Your task to perform on an android device: toggle show notifications on the lock screen Image 0: 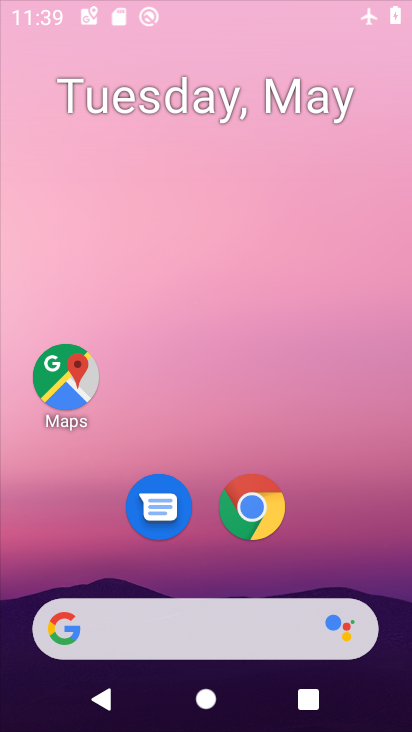
Step 0: click (205, 218)
Your task to perform on an android device: toggle show notifications on the lock screen Image 1: 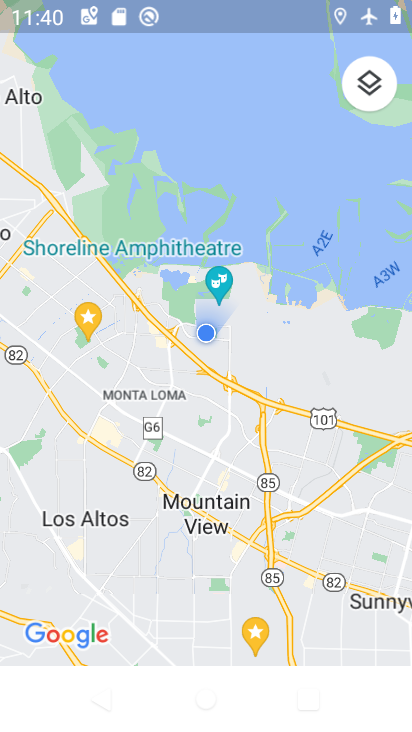
Step 1: press back button
Your task to perform on an android device: toggle show notifications on the lock screen Image 2: 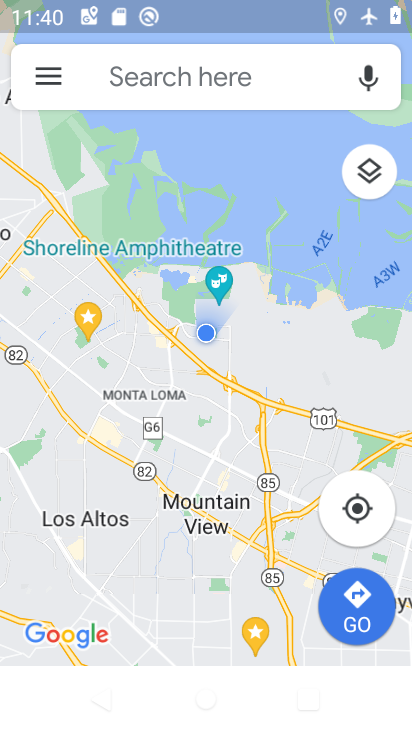
Step 2: press home button
Your task to perform on an android device: toggle show notifications on the lock screen Image 3: 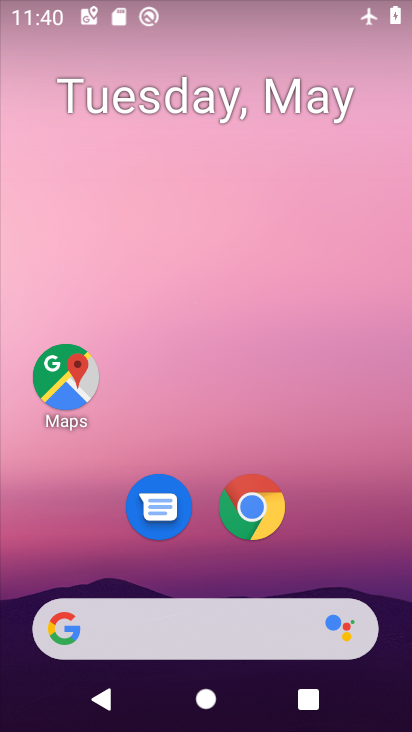
Step 3: drag from (253, 640) to (130, 9)
Your task to perform on an android device: toggle show notifications on the lock screen Image 4: 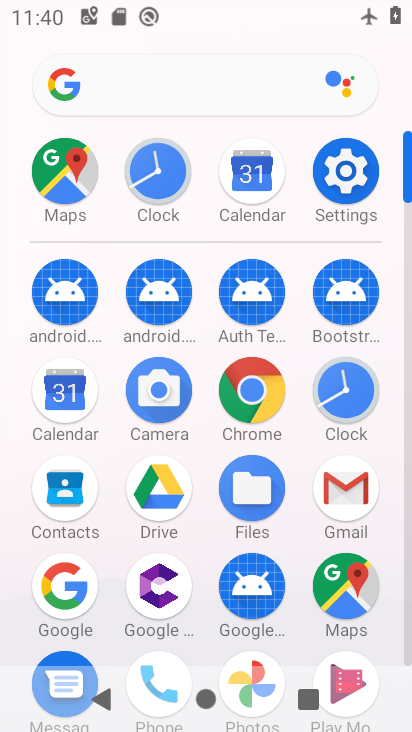
Step 4: click (341, 163)
Your task to perform on an android device: toggle show notifications on the lock screen Image 5: 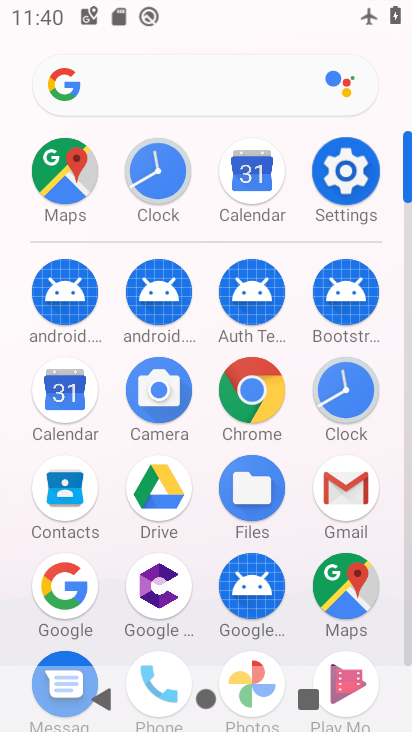
Step 5: click (345, 173)
Your task to perform on an android device: toggle show notifications on the lock screen Image 6: 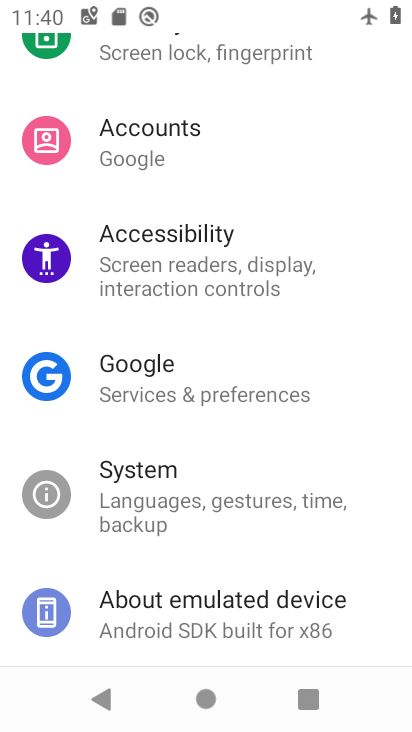
Step 6: drag from (147, 503) to (197, 634)
Your task to perform on an android device: toggle show notifications on the lock screen Image 7: 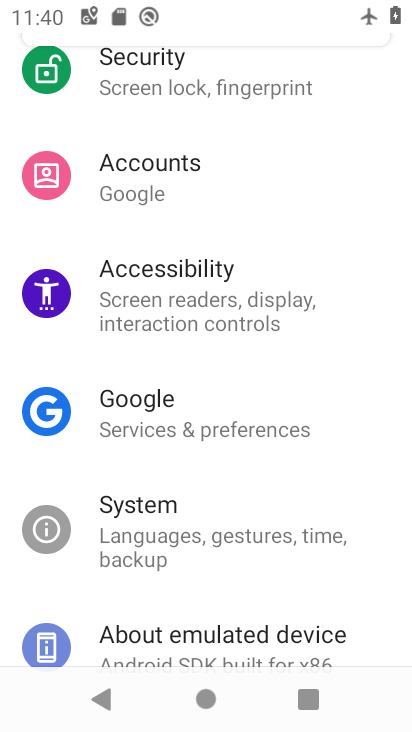
Step 7: drag from (148, 265) to (178, 549)
Your task to perform on an android device: toggle show notifications on the lock screen Image 8: 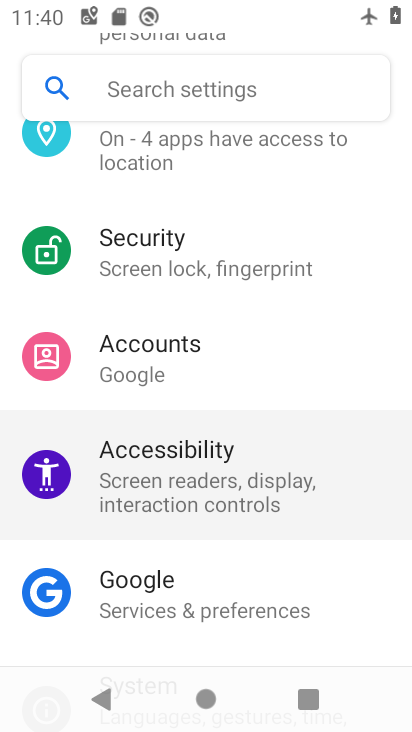
Step 8: drag from (193, 407) to (209, 688)
Your task to perform on an android device: toggle show notifications on the lock screen Image 9: 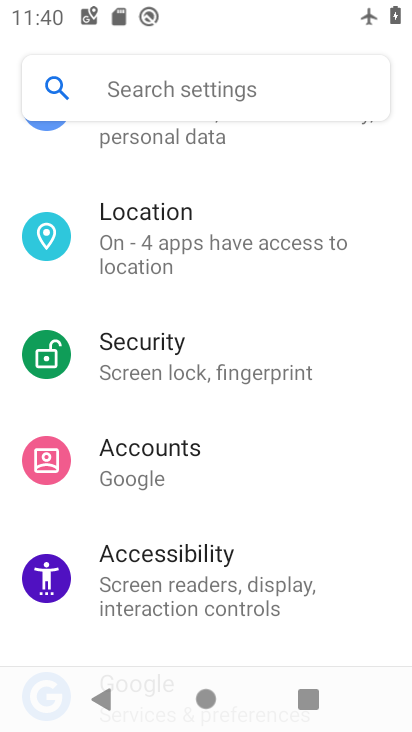
Step 9: drag from (234, 325) to (239, 538)
Your task to perform on an android device: toggle show notifications on the lock screen Image 10: 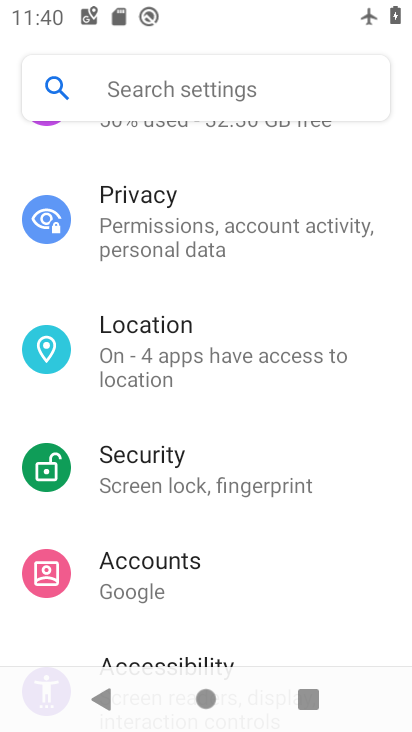
Step 10: drag from (216, 211) to (224, 516)
Your task to perform on an android device: toggle show notifications on the lock screen Image 11: 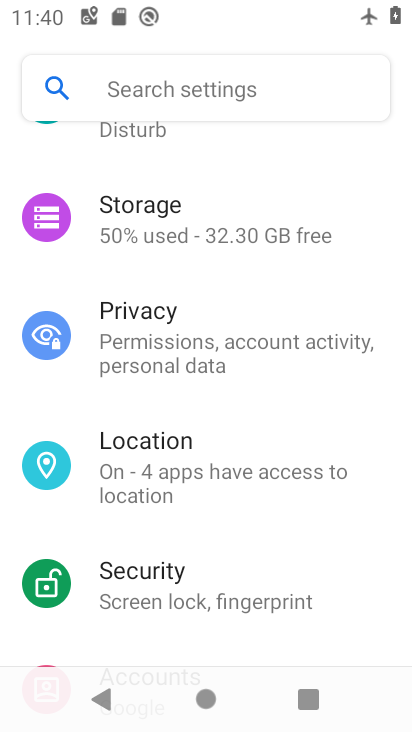
Step 11: drag from (249, 192) to (251, 548)
Your task to perform on an android device: toggle show notifications on the lock screen Image 12: 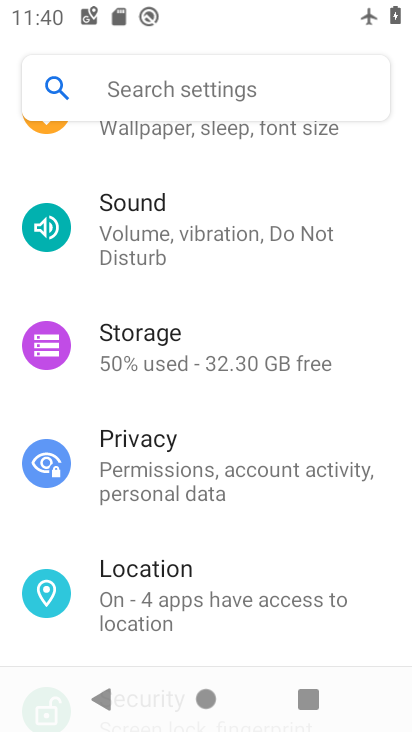
Step 12: drag from (231, 324) to (208, 564)
Your task to perform on an android device: toggle show notifications on the lock screen Image 13: 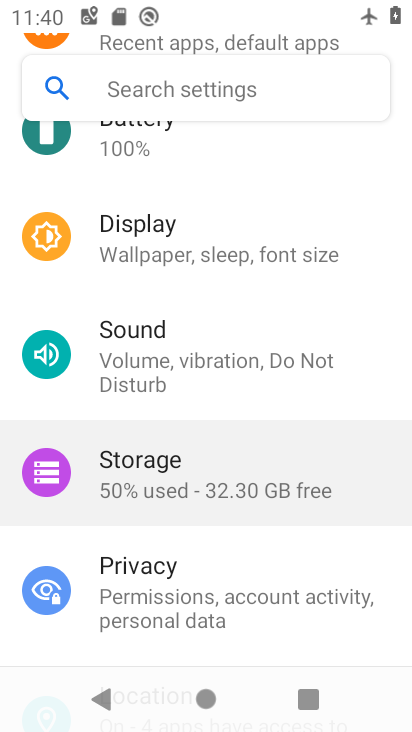
Step 13: drag from (168, 212) to (184, 509)
Your task to perform on an android device: toggle show notifications on the lock screen Image 14: 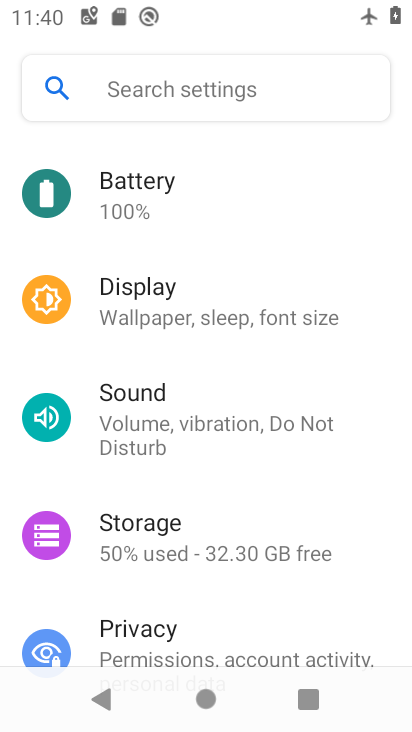
Step 14: drag from (198, 288) to (227, 622)
Your task to perform on an android device: toggle show notifications on the lock screen Image 15: 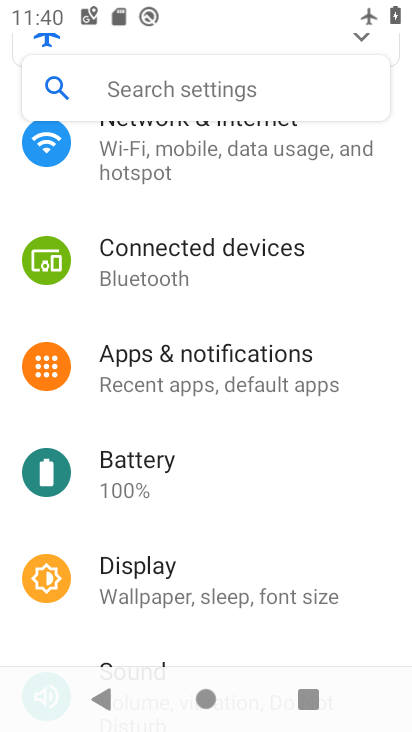
Step 15: drag from (188, 484) to (196, 674)
Your task to perform on an android device: toggle show notifications on the lock screen Image 16: 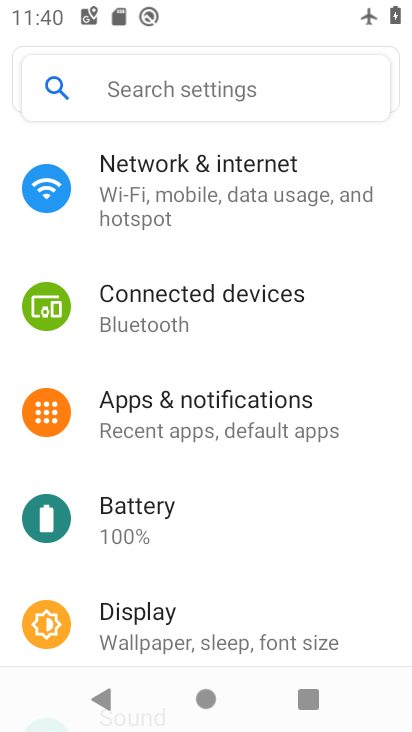
Step 16: click (204, 409)
Your task to perform on an android device: toggle show notifications on the lock screen Image 17: 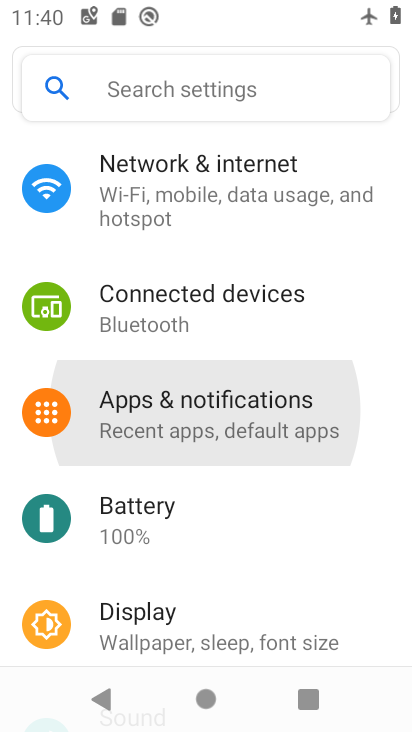
Step 17: click (204, 409)
Your task to perform on an android device: toggle show notifications on the lock screen Image 18: 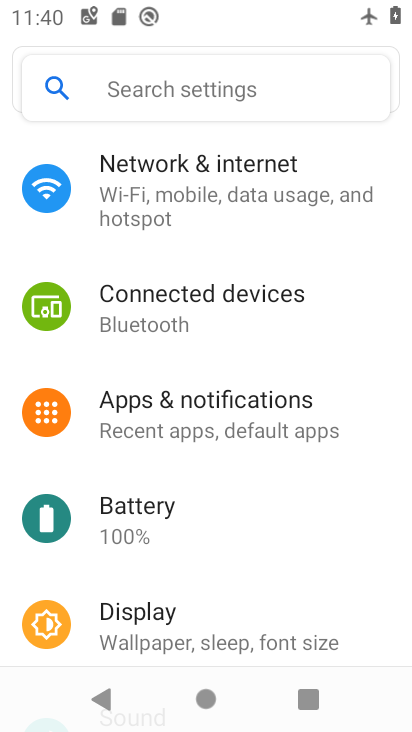
Step 18: click (206, 408)
Your task to perform on an android device: toggle show notifications on the lock screen Image 19: 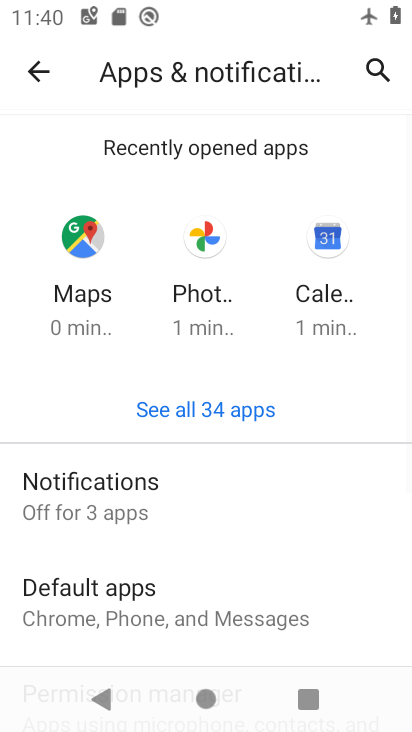
Step 19: drag from (161, 477) to (192, 226)
Your task to perform on an android device: toggle show notifications on the lock screen Image 20: 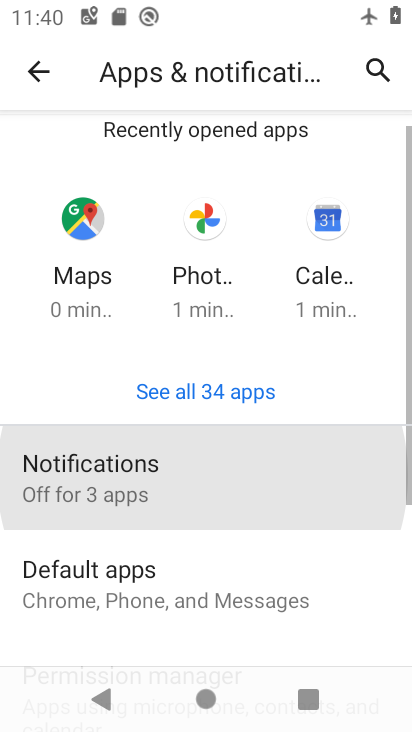
Step 20: drag from (240, 421) to (234, 315)
Your task to perform on an android device: toggle show notifications on the lock screen Image 21: 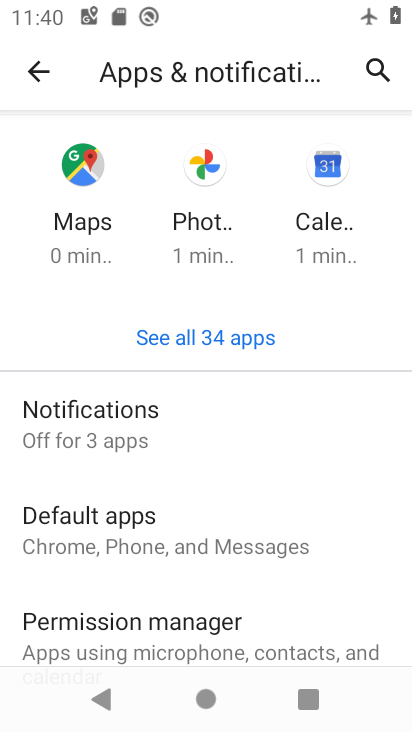
Step 21: click (94, 408)
Your task to perform on an android device: toggle show notifications on the lock screen Image 22: 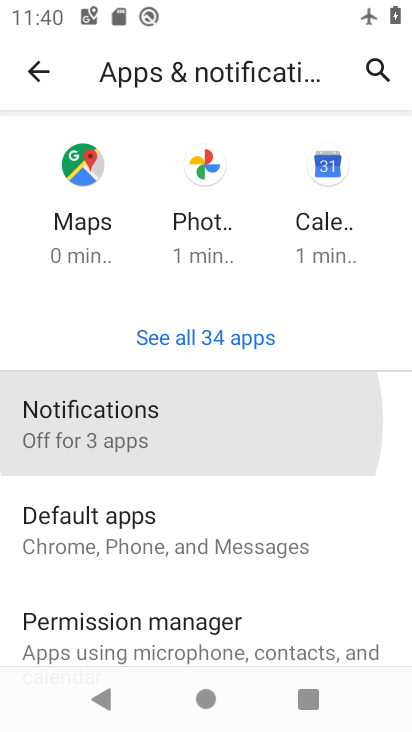
Step 22: click (94, 408)
Your task to perform on an android device: toggle show notifications on the lock screen Image 23: 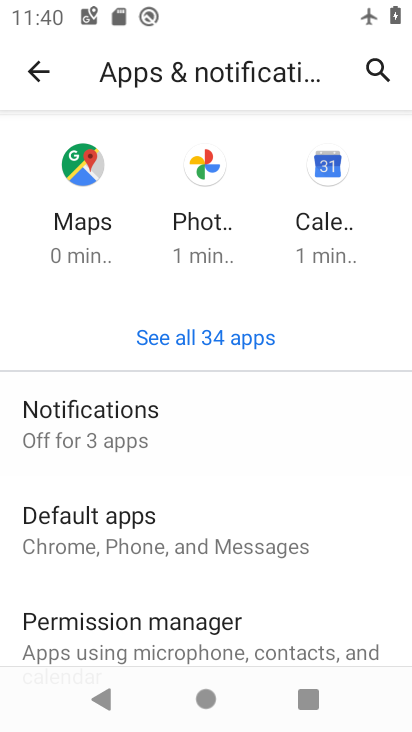
Step 23: click (97, 408)
Your task to perform on an android device: toggle show notifications on the lock screen Image 24: 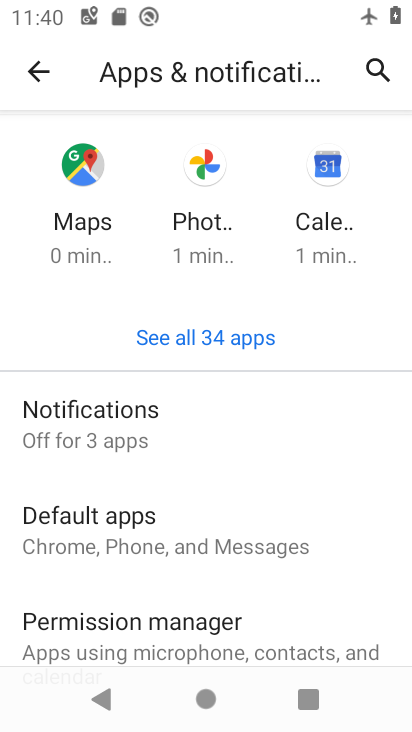
Step 24: click (101, 408)
Your task to perform on an android device: toggle show notifications on the lock screen Image 25: 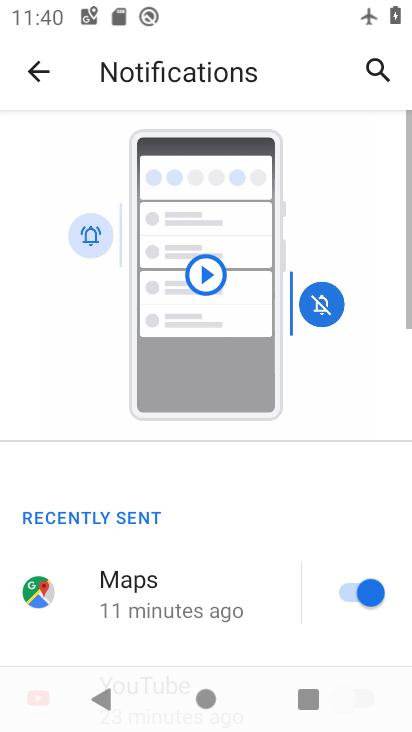
Step 25: drag from (260, 602) to (225, 355)
Your task to perform on an android device: toggle show notifications on the lock screen Image 26: 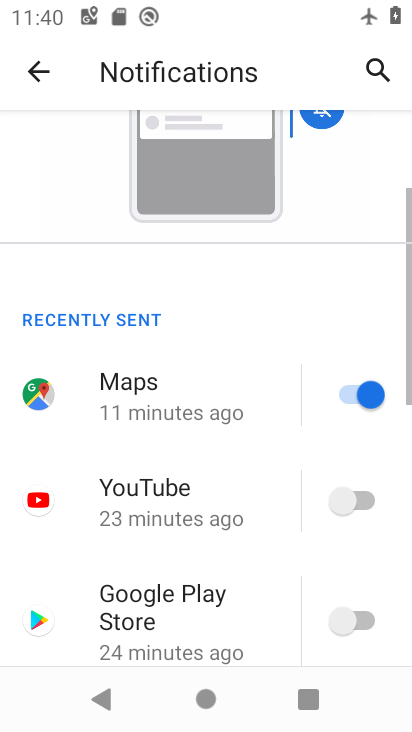
Step 26: drag from (278, 491) to (321, 140)
Your task to perform on an android device: toggle show notifications on the lock screen Image 27: 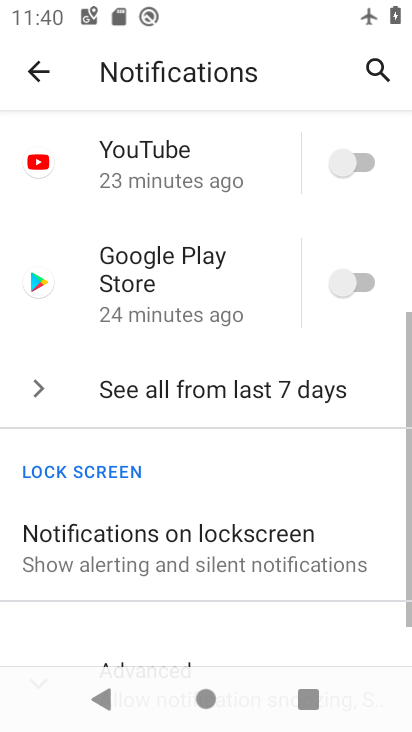
Step 27: drag from (266, 491) to (270, 258)
Your task to perform on an android device: toggle show notifications on the lock screen Image 28: 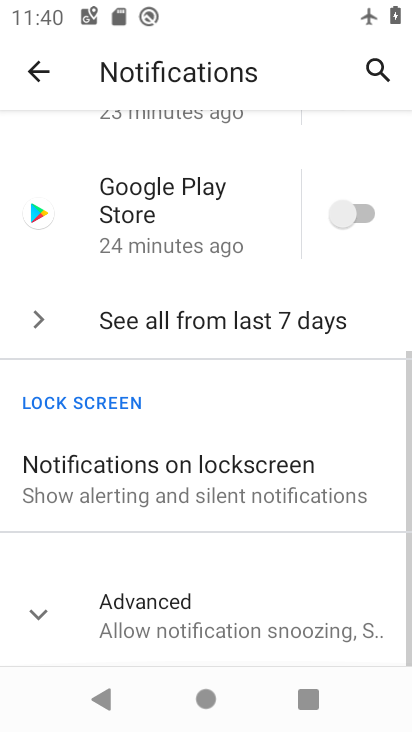
Step 28: click (276, 230)
Your task to perform on an android device: toggle show notifications on the lock screen Image 29: 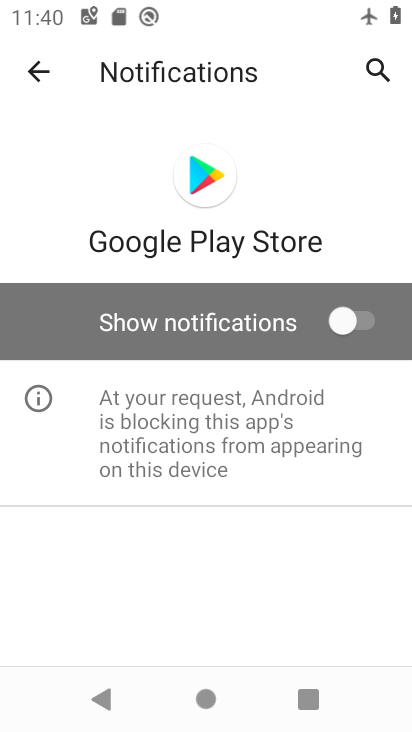
Step 29: click (38, 75)
Your task to perform on an android device: toggle show notifications on the lock screen Image 30: 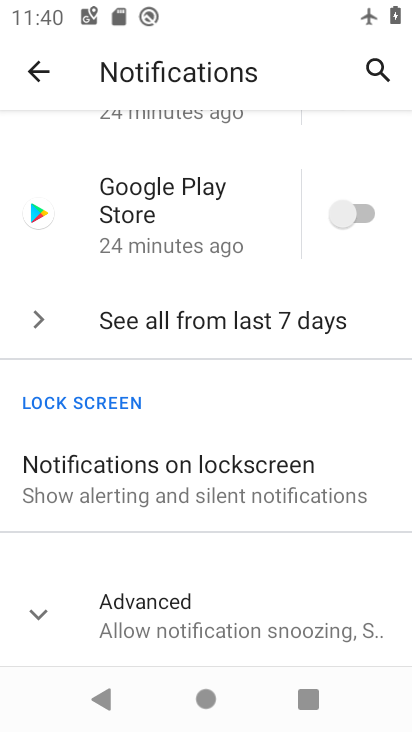
Step 30: click (93, 467)
Your task to perform on an android device: toggle show notifications on the lock screen Image 31: 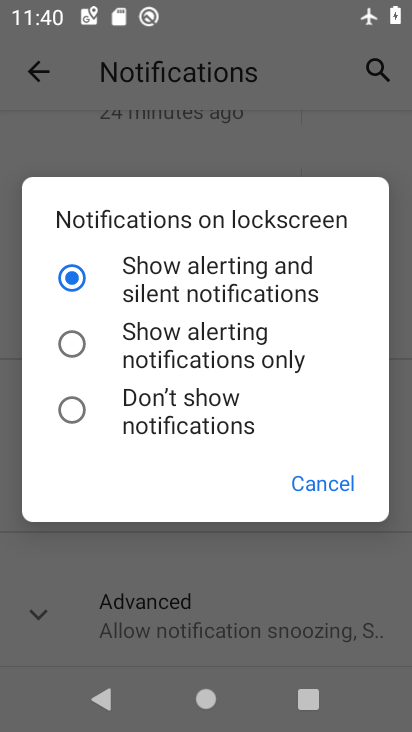
Step 31: click (354, 478)
Your task to perform on an android device: toggle show notifications on the lock screen Image 32: 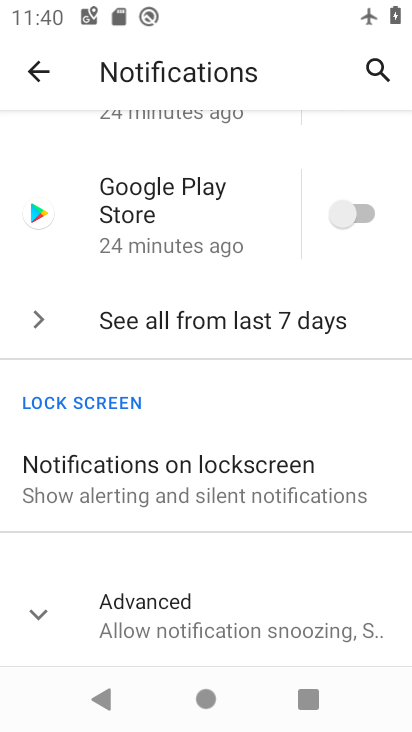
Step 32: task complete